Your task to perform on an android device: Open battery settings Image 0: 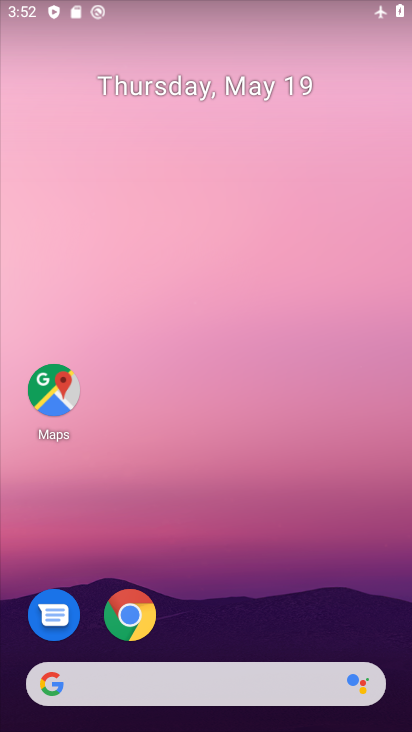
Step 0: drag from (271, 642) to (268, 16)
Your task to perform on an android device: Open battery settings Image 1: 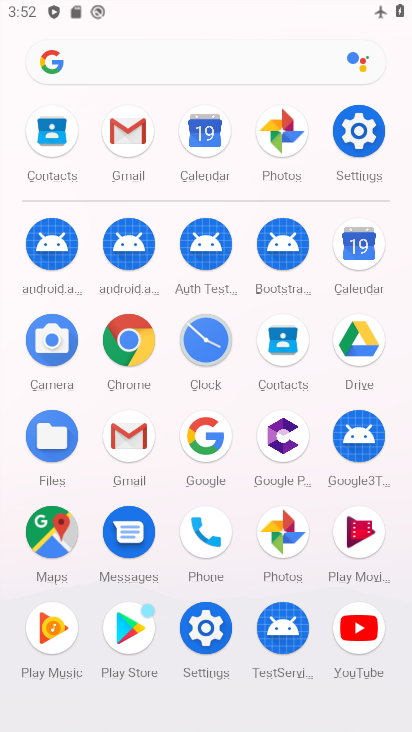
Step 1: click (353, 130)
Your task to perform on an android device: Open battery settings Image 2: 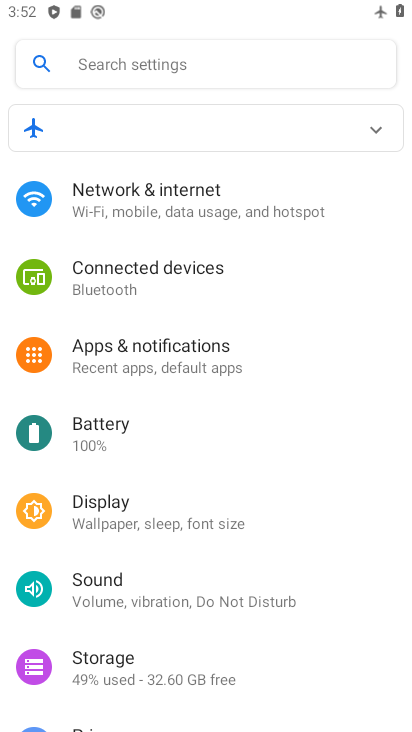
Step 2: click (86, 438)
Your task to perform on an android device: Open battery settings Image 3: 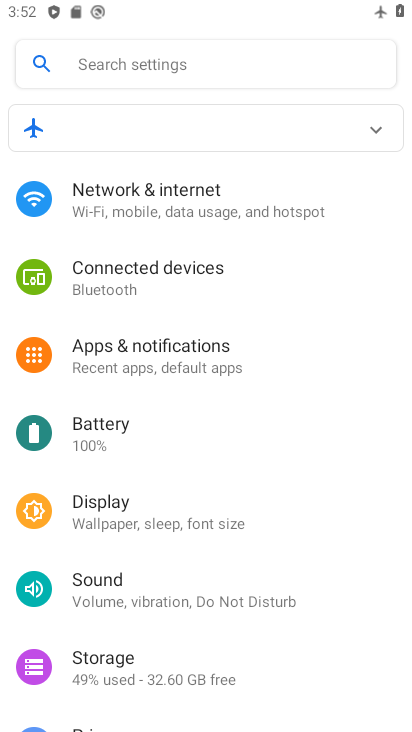
Step 3: click (73, 437)
Your task to perform on an android device: Open battery settings Image 4: 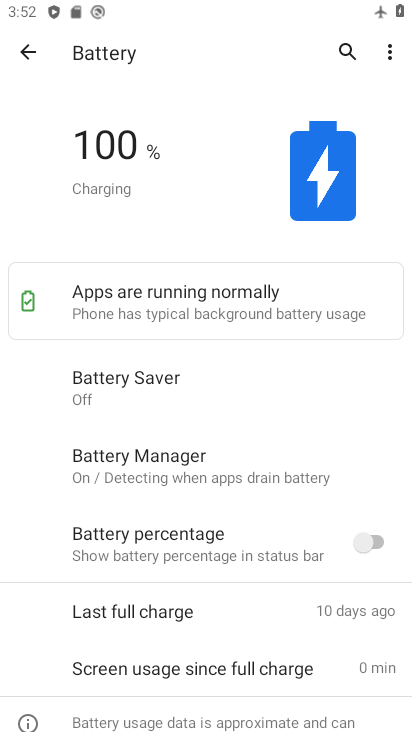
Step 4: task complete